Your task to perform on an android device: see creations saved in the google photos Image 0: 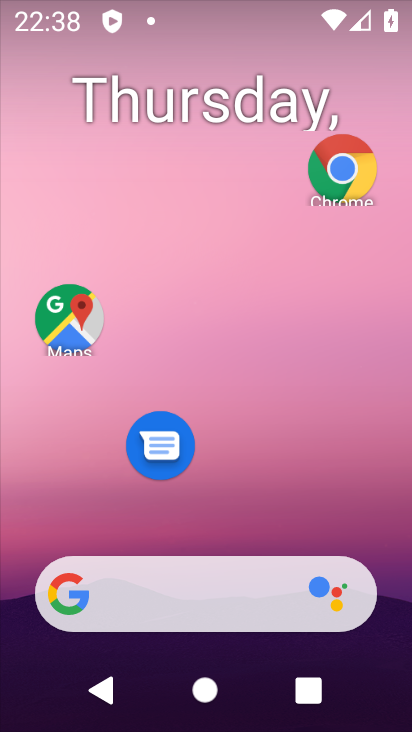
Step 0: click (198, 457)
Your task to perform on an android device: see creations saved in the google photos Image 1: 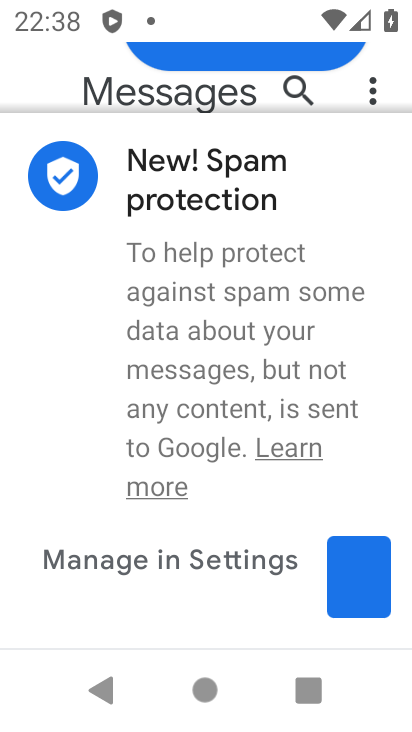
Step 1: drag from (212, 458) to (254, 246)
Your task to perform on an android device: see creations saved in the google photos Image 2: 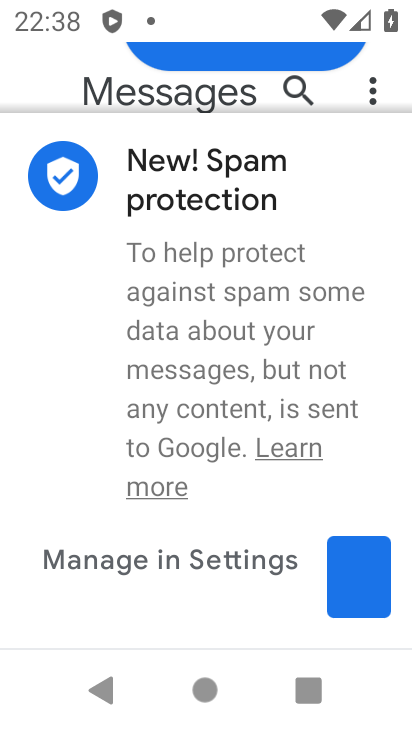
Step 2: press home button
Your task to perform on an android device: see creations saved in the google photos Image 3: 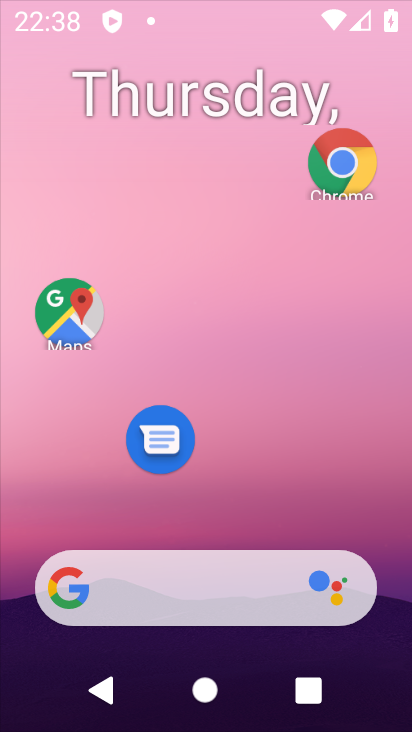
Step 3: drag from (247, 562) to (290, 209)
Your task to perform on an android device: see creations saved in the google photos Image 4: 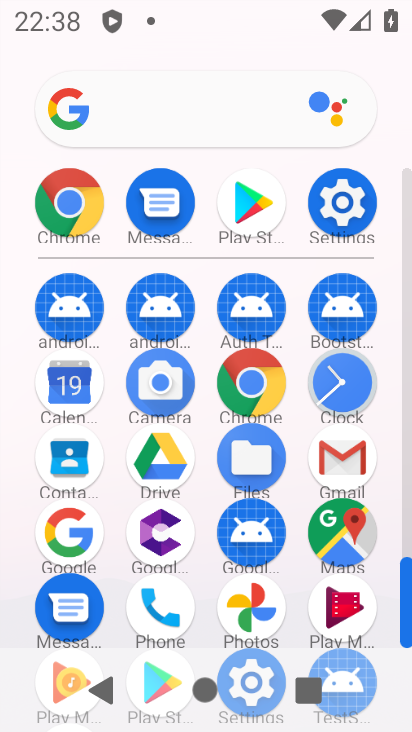
Step 4: click (242, 596)
Your task to perform on an android device: see creations saved in the google photos Image 5: 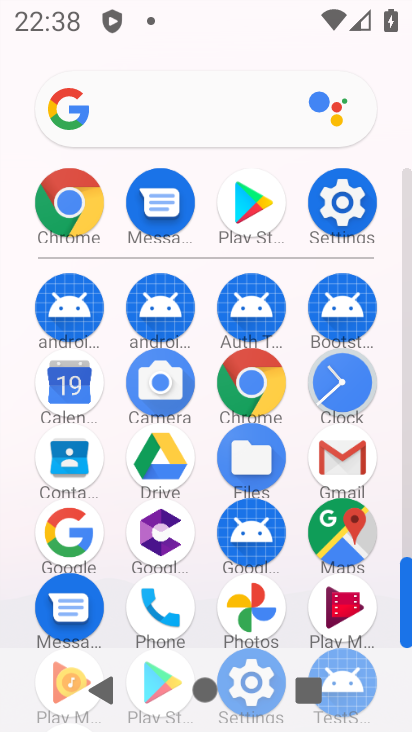
Step 5: click (242, 596)
Your task to perform on an android device: see creations saved in the google photos Image 6: 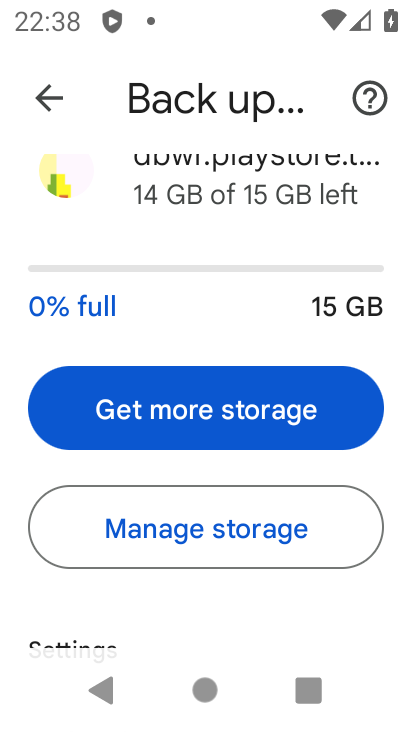
Step 6: drag from (229, 261) to (268, 621)
Your task to perform on an android device: see creations saved in the google photos Image 7: 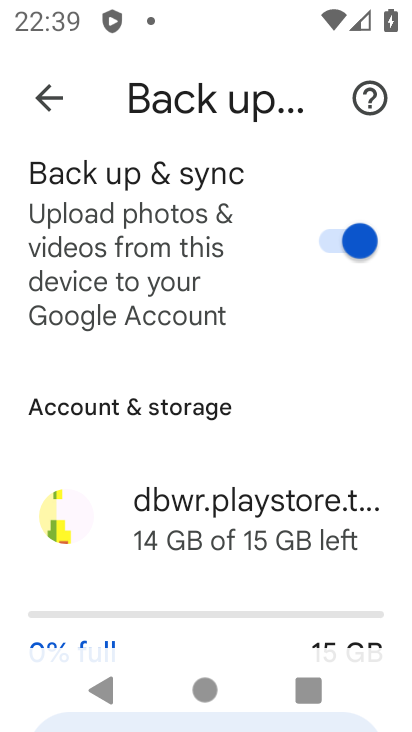
Step 7: drag from (183, 528) to (274, 112)
Your task to perform on an android device: see creations saved in the google photos Image 8: 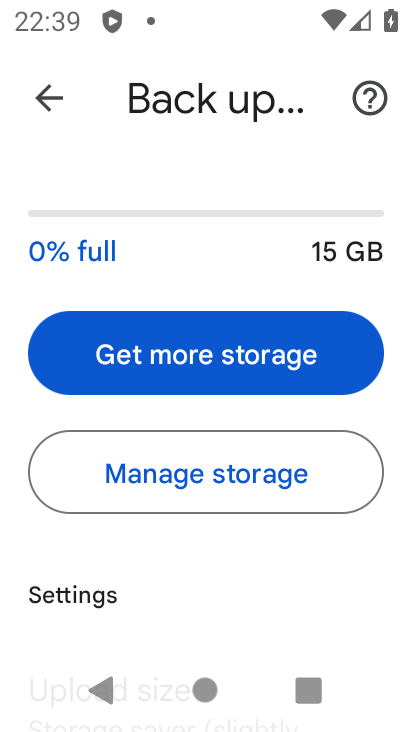
Step 8: press back button
Your task to perform on an android device: see creations saved in the google photos Image 9: 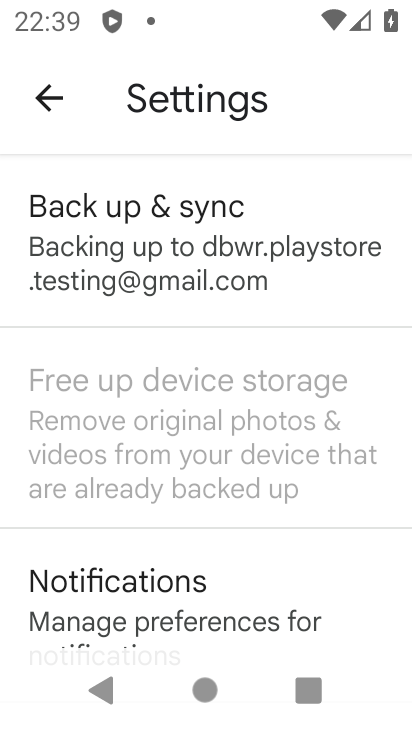
Step 9: press back button
Your task to perform on an android device: see creations saved in the google photos Image 10: 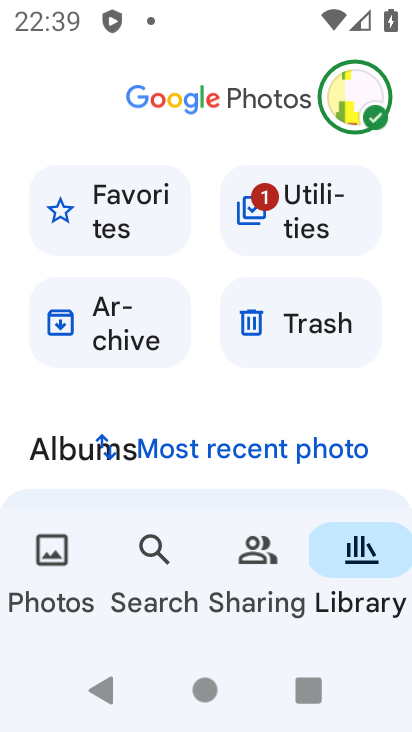
Step 10: click (153, 548)
Your task to perform on an android device: see creations saved in the google photos Image 11: 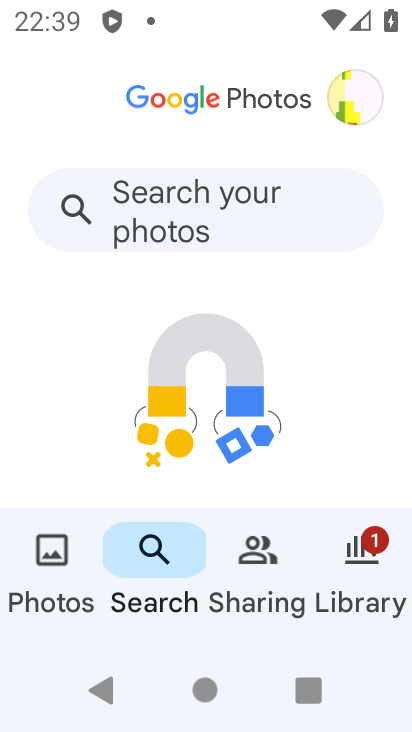
Step 11: click (251, 182)
Your task to perform on an android device: see creations saved in the google photos Image 12: 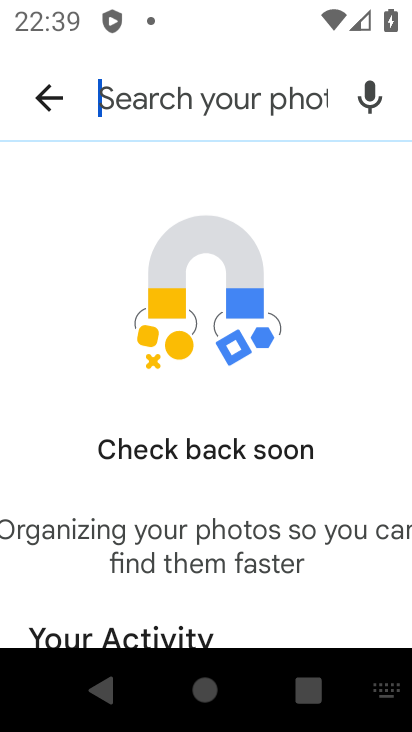
Step 12: drag from (230, 510) to (317, 201)
Your task to perform on an android device: see creations saved in the google photos Image 13: 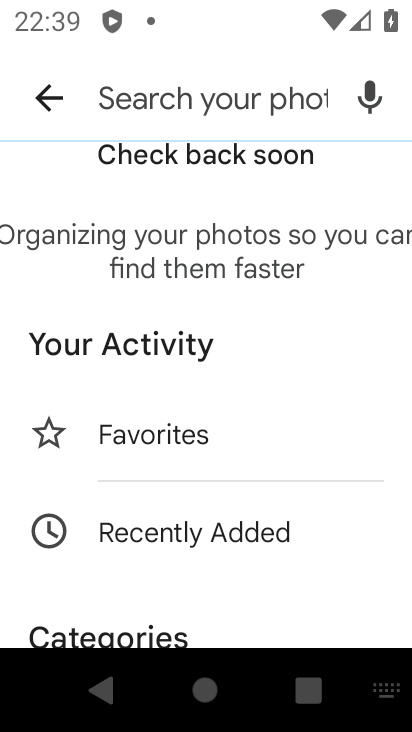
Step 13: click (63, 76)
Your task to perform on an android device: see creations saved in the google photos Image 14: 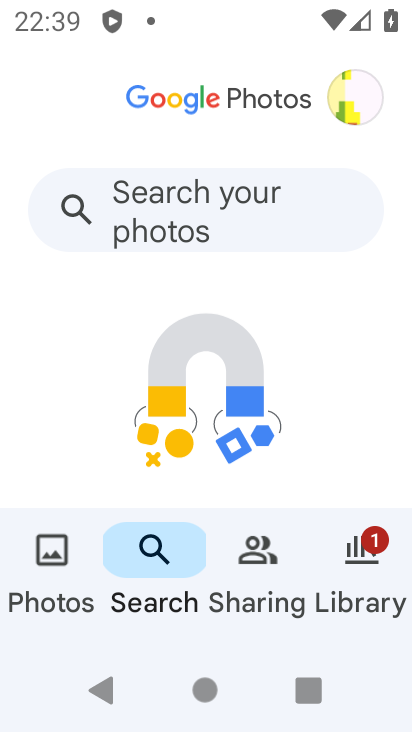
Step 14: click (168, 192)
Your task to perform on an android device: see creations saved in the google photos Image 15: 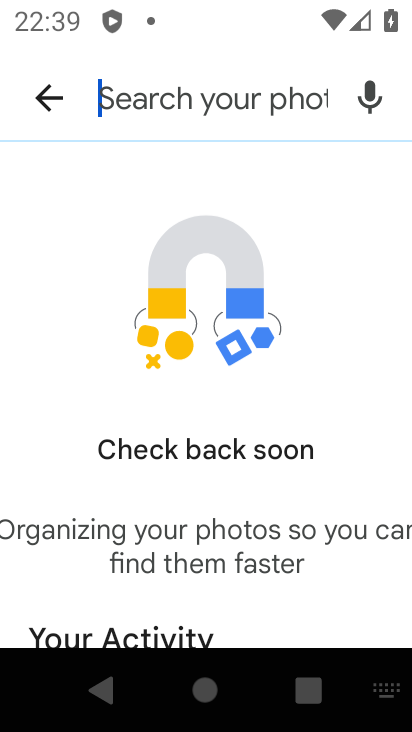
Step 15: drag from (230, 467) to (314, 18)
Your task to perform on an android device: see creations saved in the google photos Image 16: 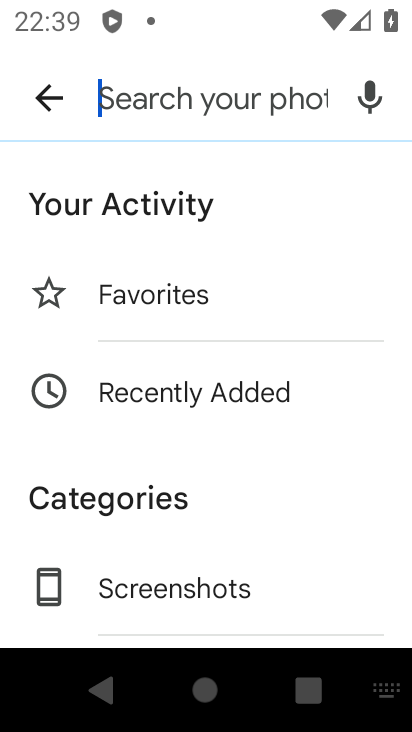
Step 16: drag from (190, 577) to (302, 108)
Your task to perform on an android device: see creations saved in the google photos Image 17: 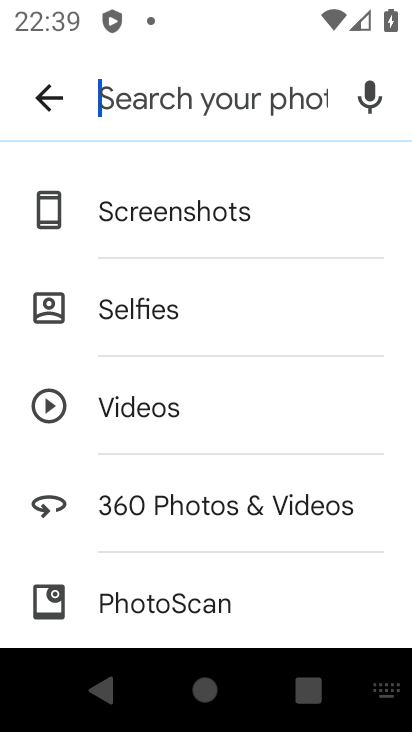
Step 17: drag from (180, 501) to (264, 182)
Your task to perform on an android device: see creations saved in the google photos Image 18: 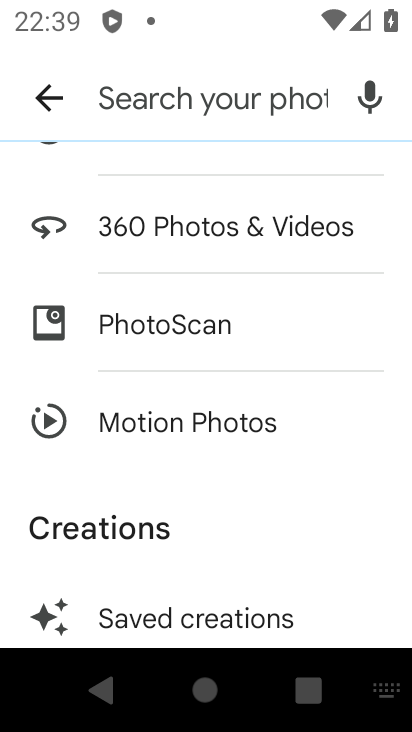
Step 18: click (153, 617)
Your task to perform on an android device: see creations saved in the google photos Image 19: 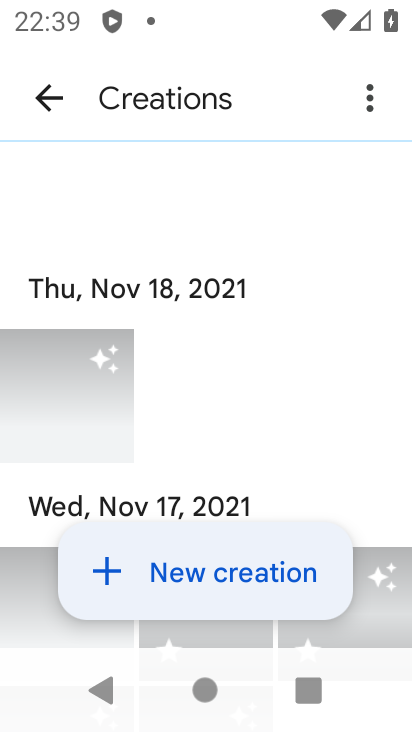
Step 19: drag from (217, 542) to (305, 212)
Your task to perform on an android device: see creations saved in the google photos Image 20: 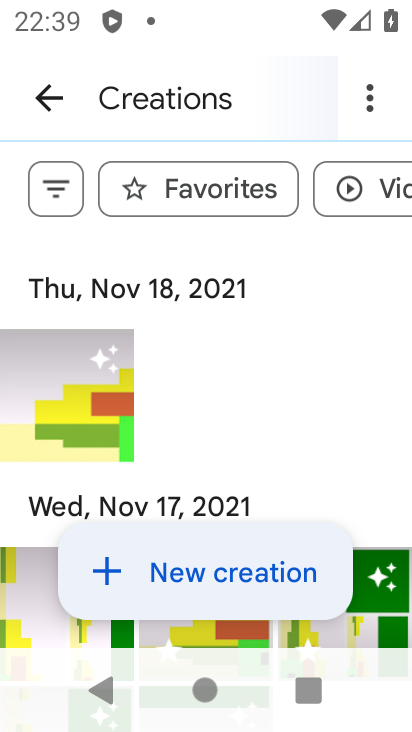
Step 20: click (71, 403)
Your task to perform on an android device: see creations saved in the google photos Image 21: 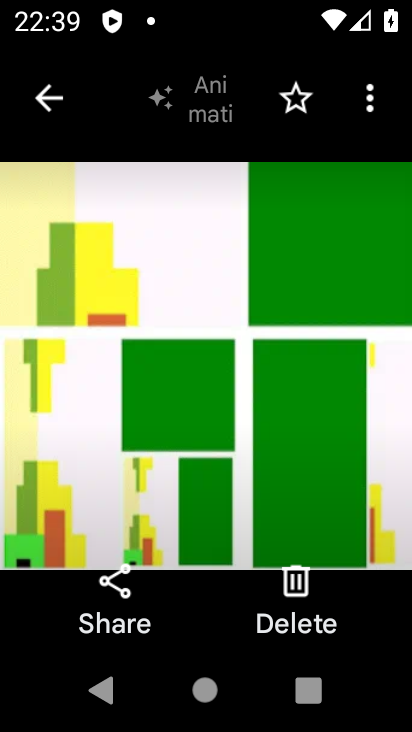
Step 21: task complete